Your task to perform on an android device: Open Youtube and go to the subscriptions tab Image 0: 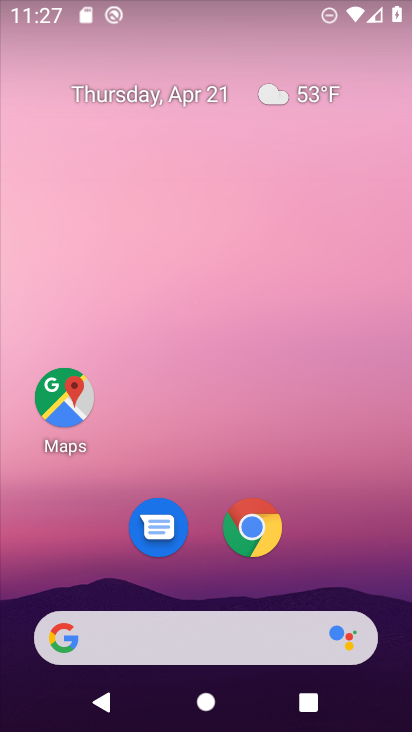
Step 0: drag from (371, 555) to (347, 119)
Your task to perform on an android device: Open Youtube and go to the subscriptions tab Image 1: 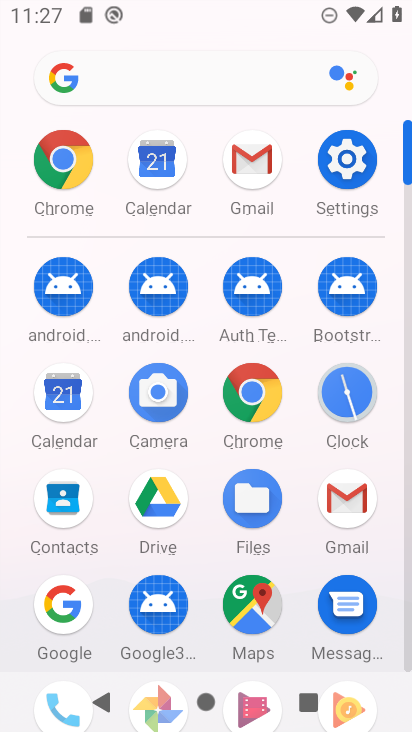
Step 1: drag from (385, 676) to (382, 298)
Your task to perform on an android device: Open Youtube and go to the subscriptions tab Image 2: 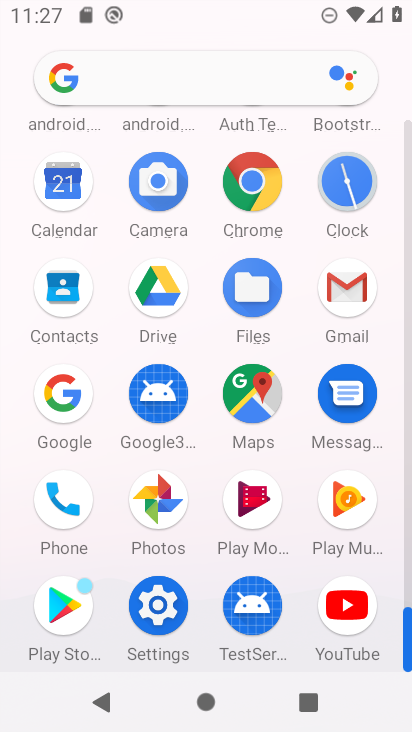
Step 2: click (359, 598)
Your task to perform on an android device: Open Youtube and go to the subscriptions tab Image 3: 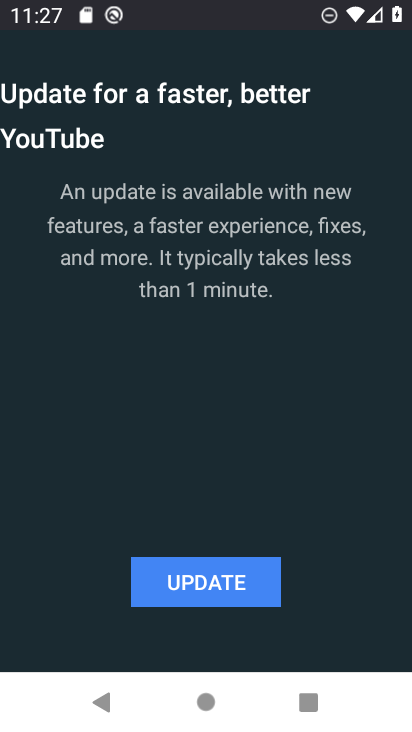
Step 3: click (230, 600)
Your task to perform on an android device: Open Youtube and go to the subscriptions tab Image 4: 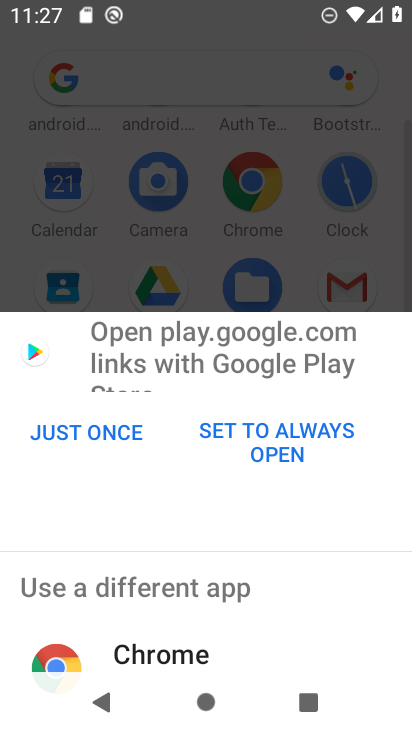
Step 4: drag from (283, 603) to (268, 426)
Your task to perform on an android device: Open Youtube and go to the subscriptions tab Image 5: 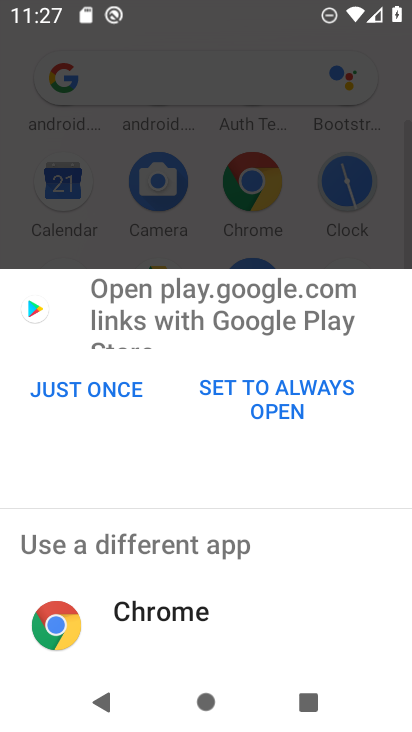
Step 5: click (80, 376)
Your task to perform on an android device: Open Youtube and go to the subscriptions tab Image 6: 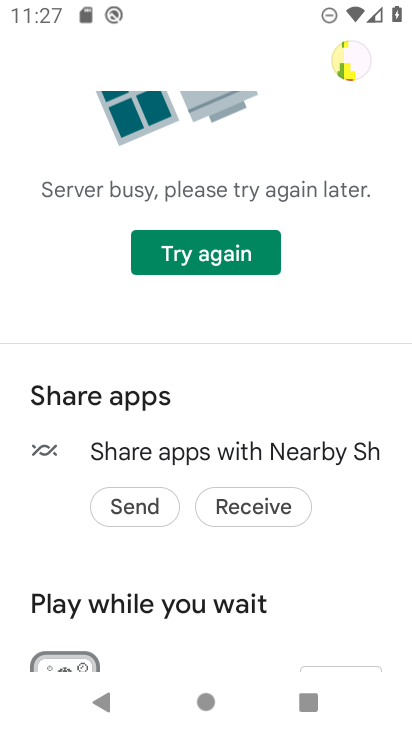
Step 6: task complete